Your task to perform on an android device: Show me popular games on the Play Store Image 0: 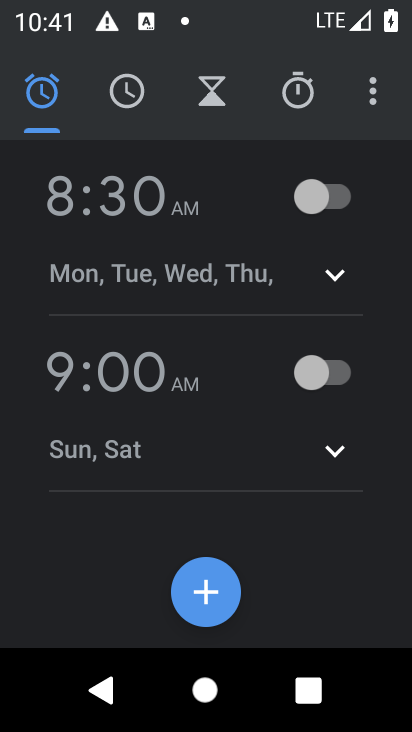
Step 0: press home button
Your task to perform on an android device: Show me popular games on the Play Store Image 1: 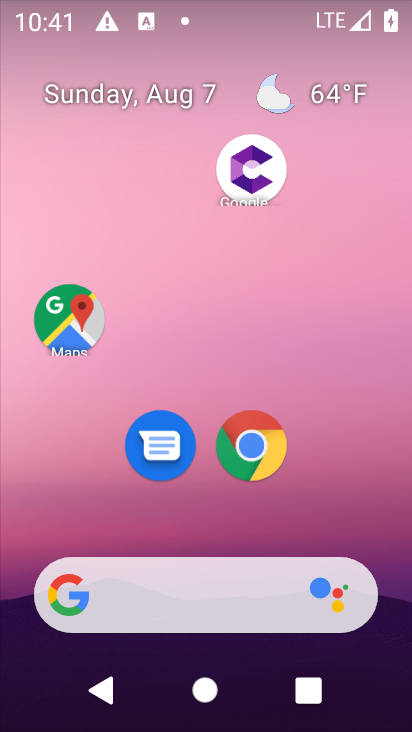
Step 1: drag from (209, 527) to (235, 47)
Your task to perform on an android device: Show me popular games on the Play Store Image 2: 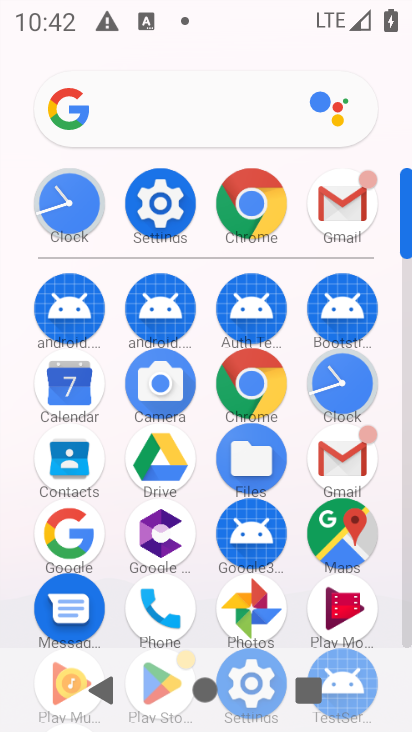
Step 2: drag from (193, 570) to (224, 196)
Your task to perform on an android device: Show me popular games on the Play Store Image 3: 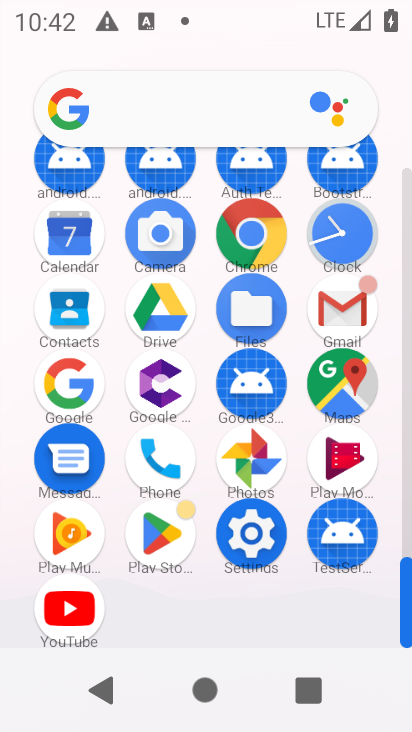
Step 3: click (155, 535)
Your task to perform on an android device: Show me popular games on the Play Store Image 4: 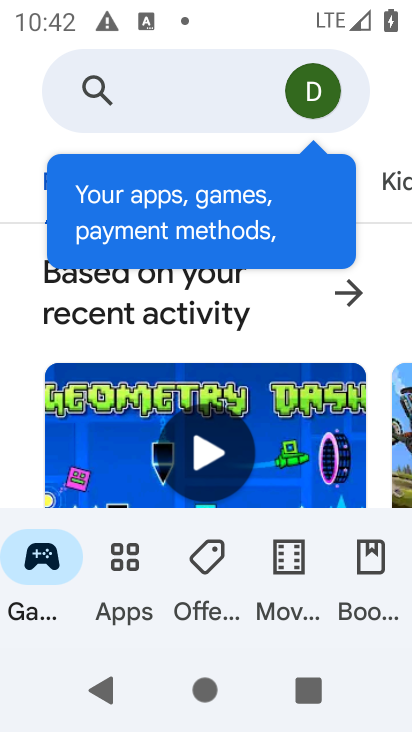
Step 4: task complete